Your task to perform on an android device: change the clock display to analog Image 0: 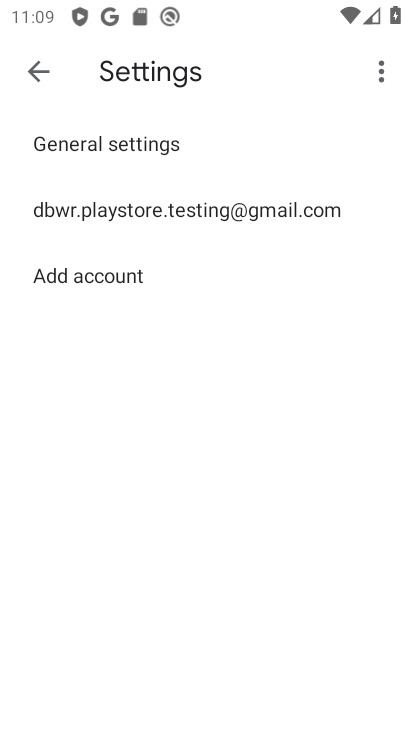
Step 0: press home button
Your task to perform on an android device: change the clock display to analog Image 1: 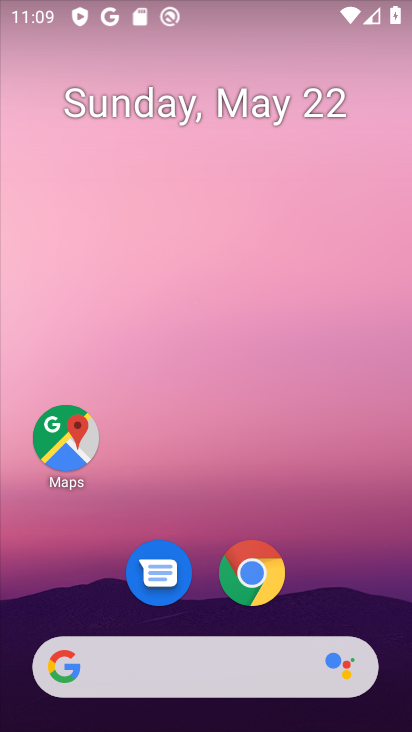
Step 1: drag from (213, 667) to (352, 157)
Your task to perform on an android device: change the clock display to analog Image 2: 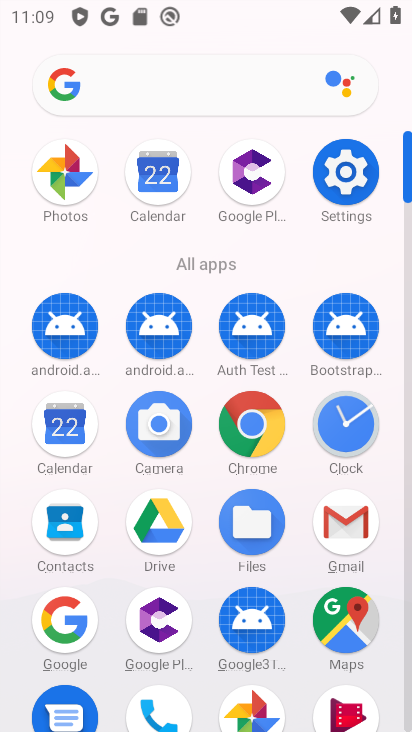
Step 2: click (348, 436)
Your task to perform on an android device: change the clock display to analog Image 3: 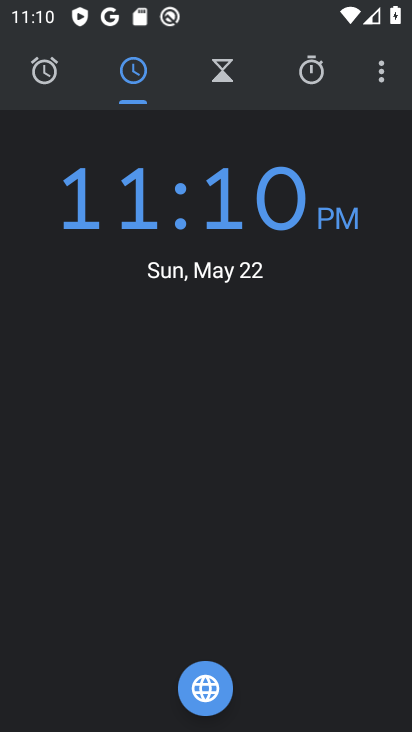
Step 3: click (385, 74)
Your task to perform on an android device: change the clock display to analog Image 4: 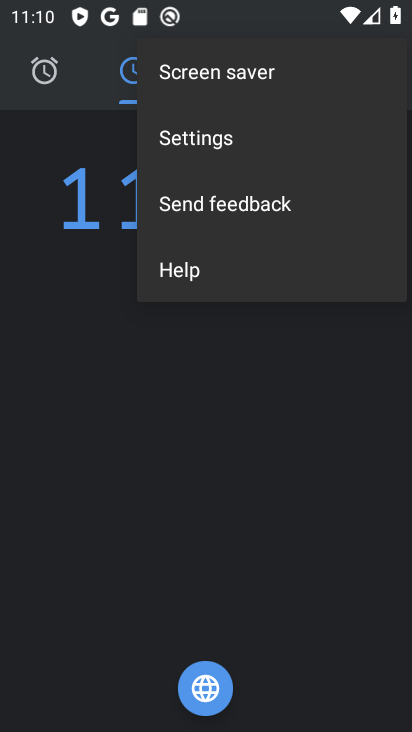
Step 4: click (246, 143)
Your task to perform on an android device: change the clock display to analog Image 5: 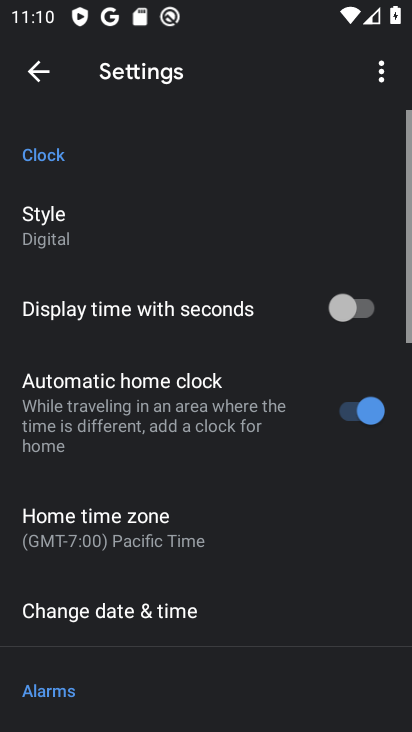
Step 5: click (54, 233)
Your task to perform on an android device: change the clock display to analog Image 6: 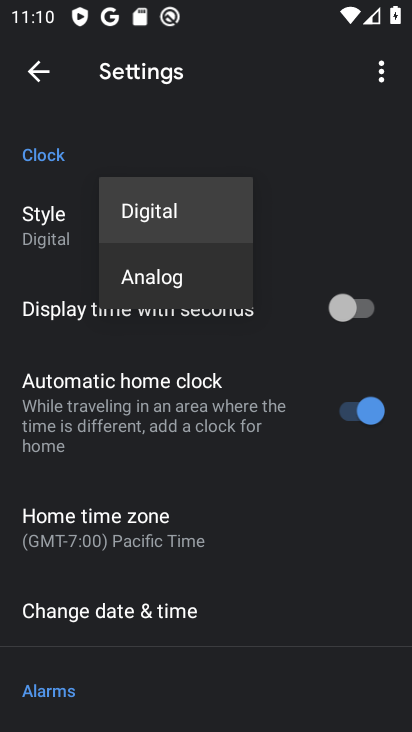
Step 6: click (139, 269)
Your task to perform on an android device: change the clock display to analog Image 7: 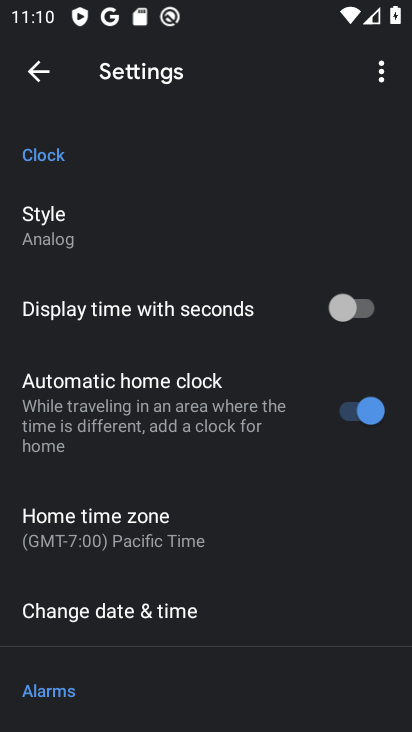
Step 7: task complete